Your task to perform on an android device: Is it going to rain tomorrow? Image 0: 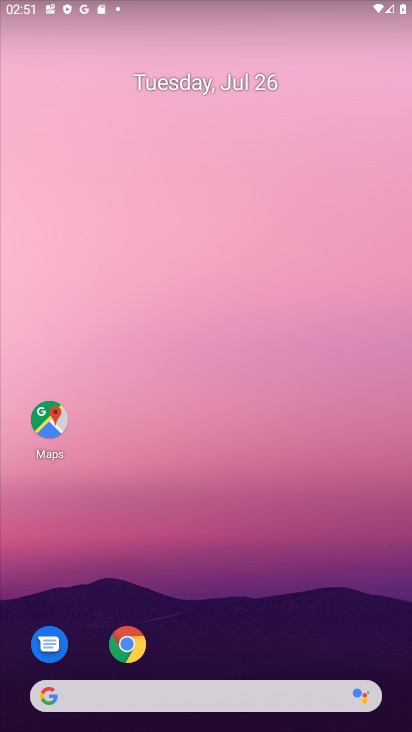
Step 0: click (192, 684)
Your task to perform on an android device: Is it going to rain tomorrow? Image 1: 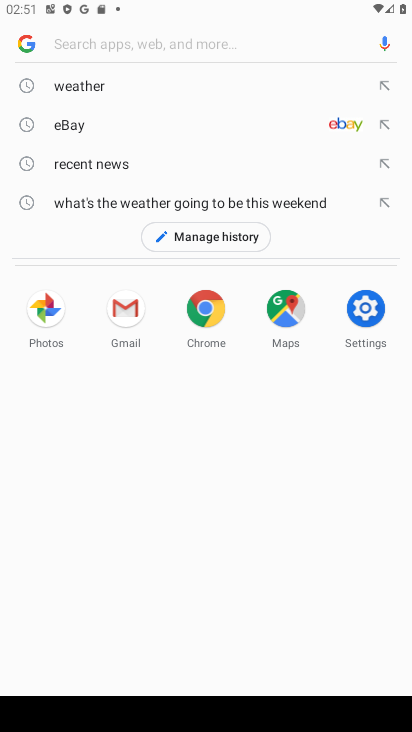
Step 1: click (78, 88)
Your task to perform on an android device: Is it going to rain tomorrow? Image 2: 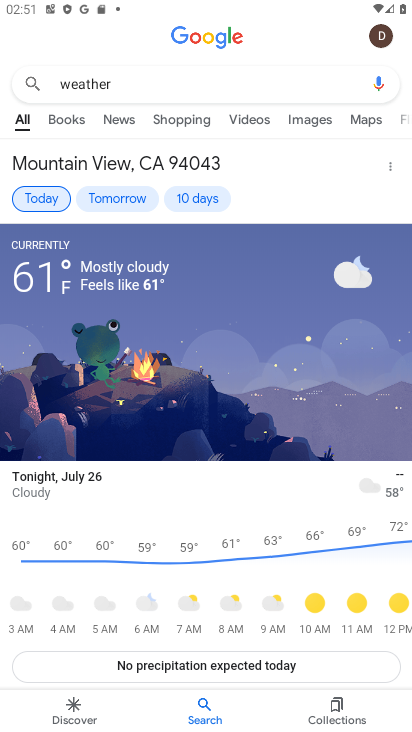
Step 2: click (86, 207)
Your task to perform on an android device: Is it going to rain tomorrow? Image 3: 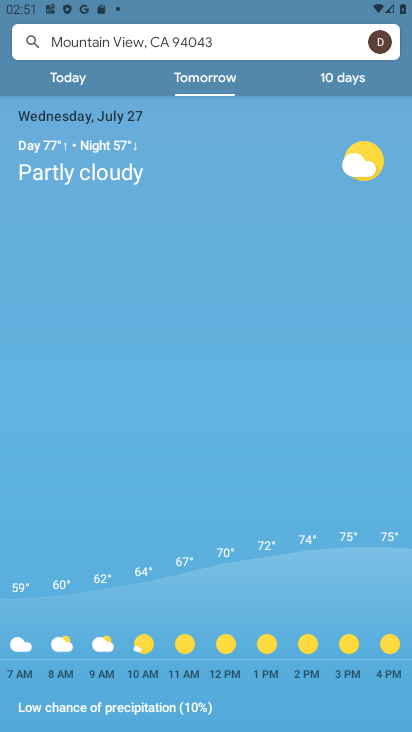
Step 3: task complete